Your task to perform on an android device: Show me productivity apps on the Play Store Image 0: 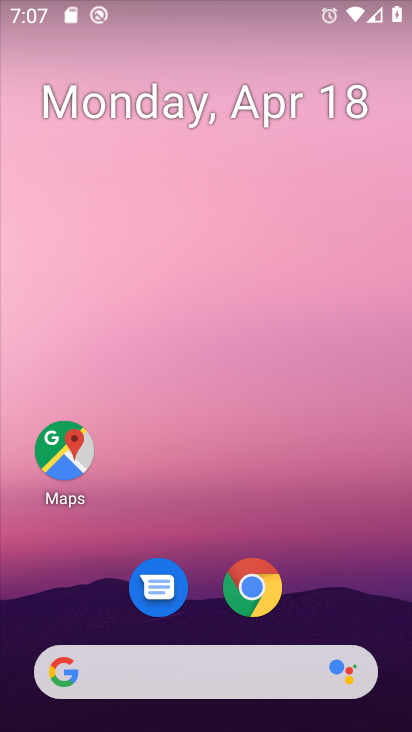
Step 0: drag from (347, 564) to (336, 76)
Your task to perform on an android device: Show me productivity apps on the Play Store Image 1: 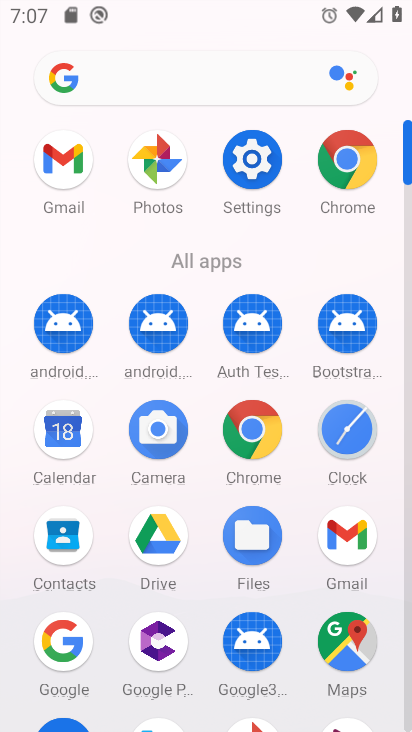
Step 1: click (410, 466)
Your task to perform on an android device: Show me productivity apps on the Play Store Image 2: 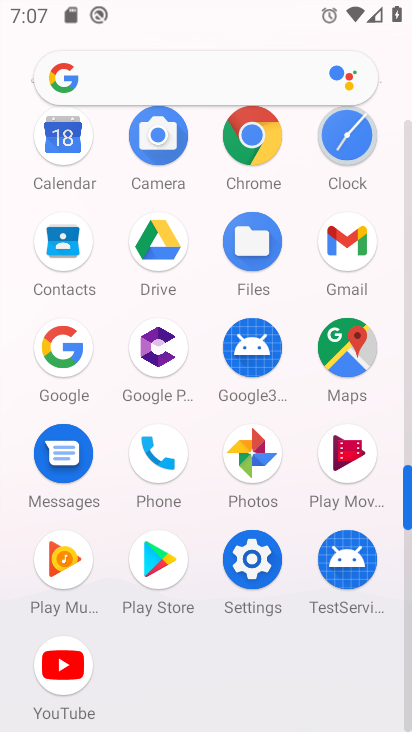
Step 2: click (139, 596)
Your task to perform on an android device: Show me productivity apps on the Play Store Image 3: 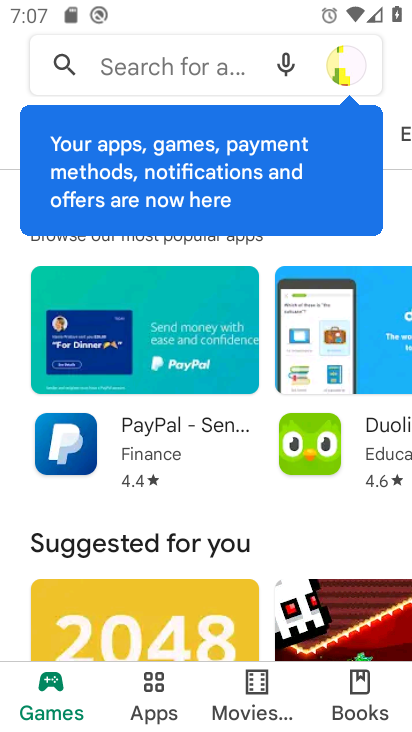
Step 3: click (145, 696)
Your task to perform on an android device: Show me productivity apps on the Play Store Image 4: 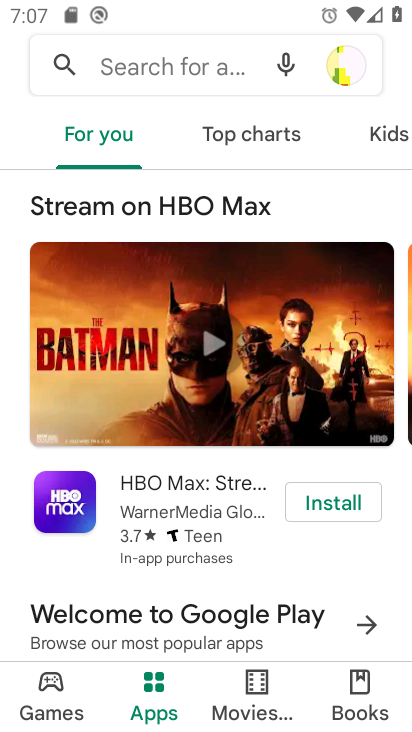
Step 4: click (247, 147)
Your task to perform on an android device: Show me productivity apps on the Play Store Image 5: 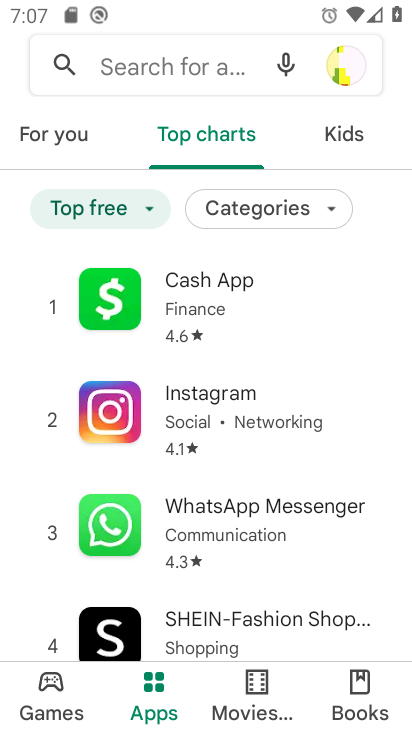
Step 5: drag from (277, 550) to (277, 416)
Your task to perform on an android device: Show me productivity apps on the Play Store Image 6: 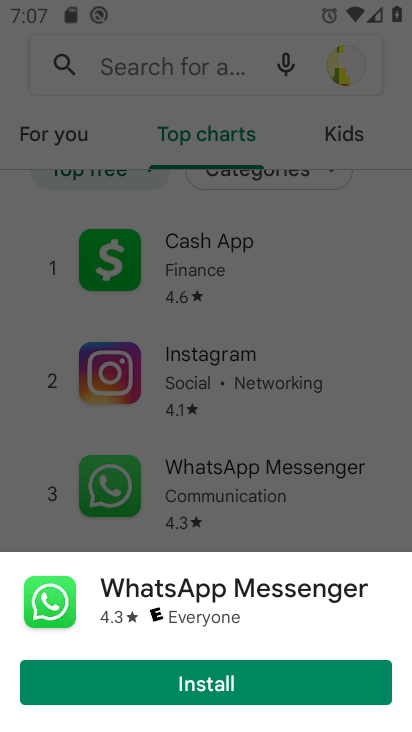
Step 6: click (228, 451)
Your task to perform on an android device: Show me productivity apps on the Play Store Image 7: 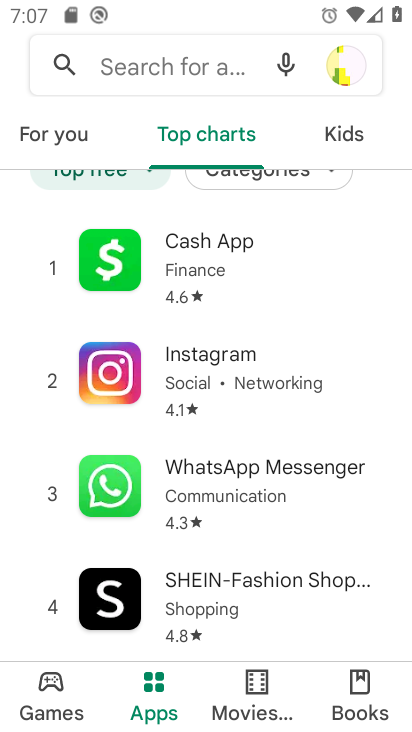
Step 7: drag from (228, 451) to (267, 185)
Your task to perform on an android device: Show me productivity apps on the Play Store Image 8: 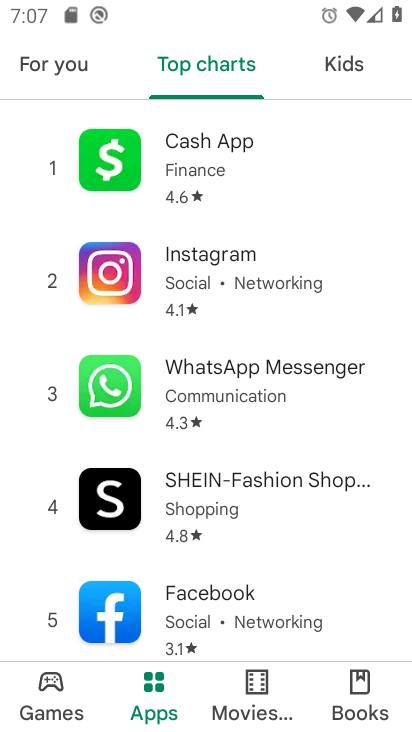
Step 8: click (48, 71)
Your task to perform on an android device: Show me productivity apps on the Play Store Image 9: 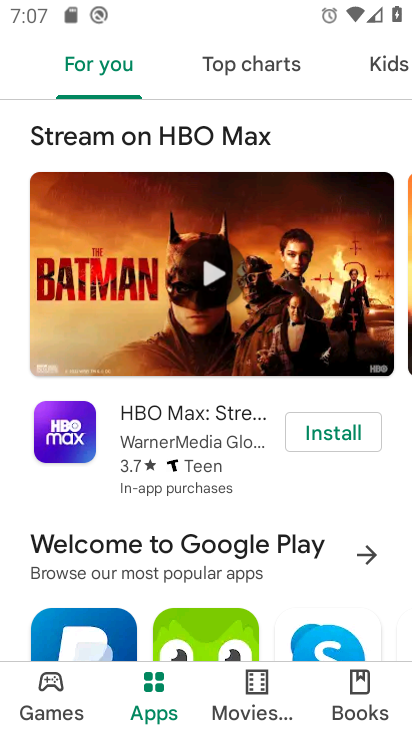
Step 9: drag from (279, 167) to (304, 563)
Your task to perform on an android device: Show me productivity apps on the Play Store Image 10: 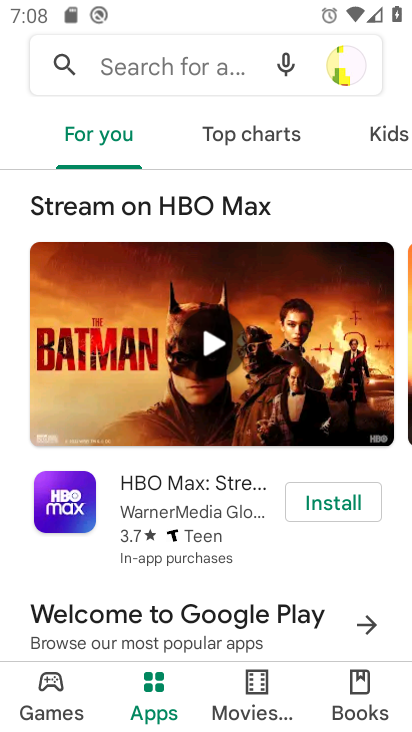
Step 10: click (212, 129)
Your task to perform on an android device: Show me productivity apps on the Play Store Image 11: 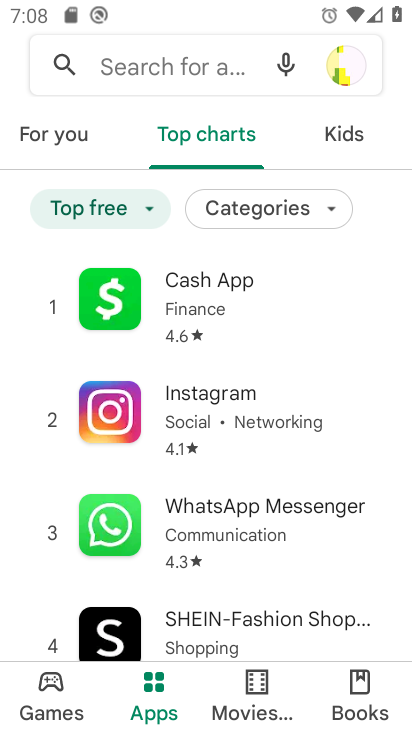
Step 11: click (230, 202)
Your task to perform on an android device: Show me productivity apps on the Play Store Image 12: 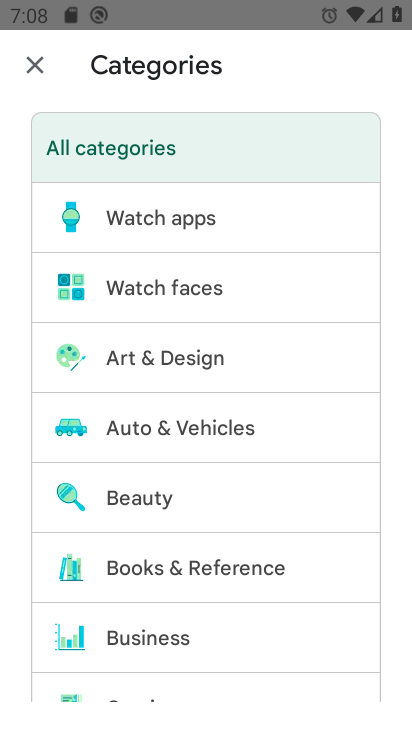
Step 12: drag from (170, 604) to (263, 149)
Your task to perform on an android device: Show me productivity apps on the Play Store Image 13: 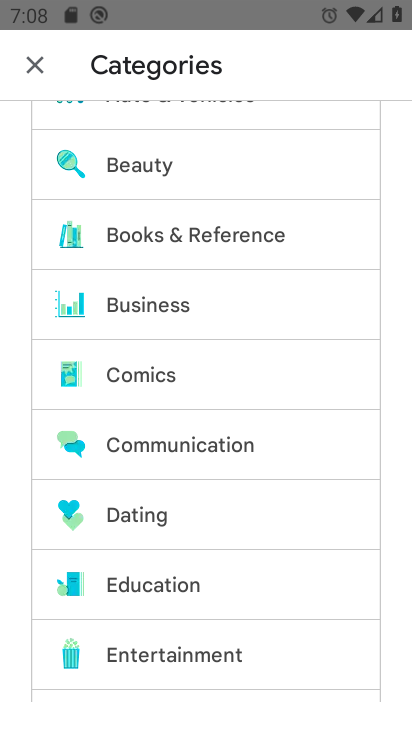
Step 13: drag from (218, 637) to (274, 210)
Your task to perform on an android device: Show me productivity apps on the Play Store Image 14: 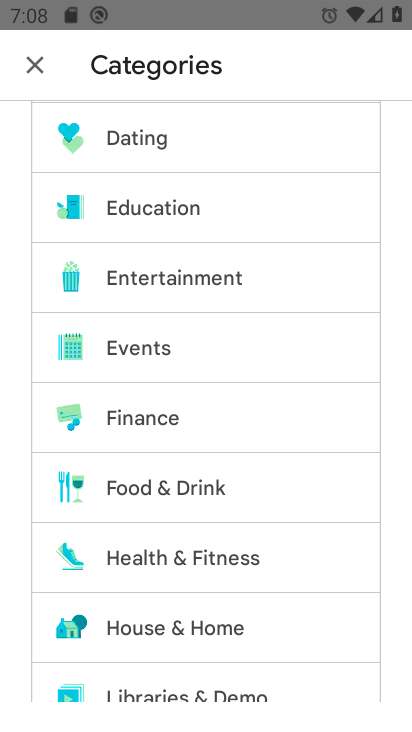
Step 14: drag from (206, 623) to (266, 151)
Your task to perform on an android device: Show me productivity apps on the Play Store Image 15: 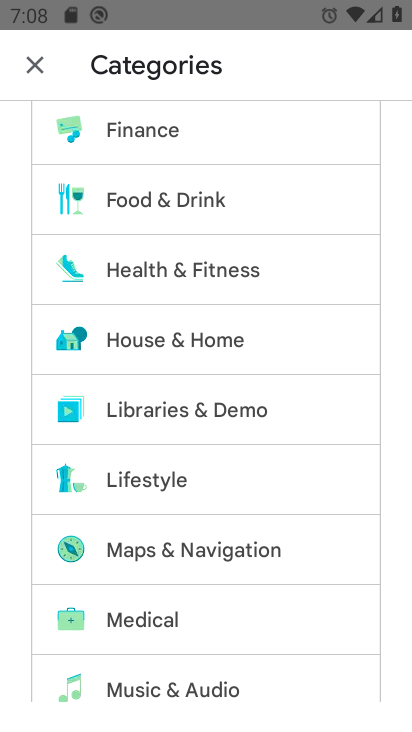
Step 15: drag from (194, 645) to (233, 234)
Your task to perform on an android device: Show me productivity apps on the Play Store Image 16: 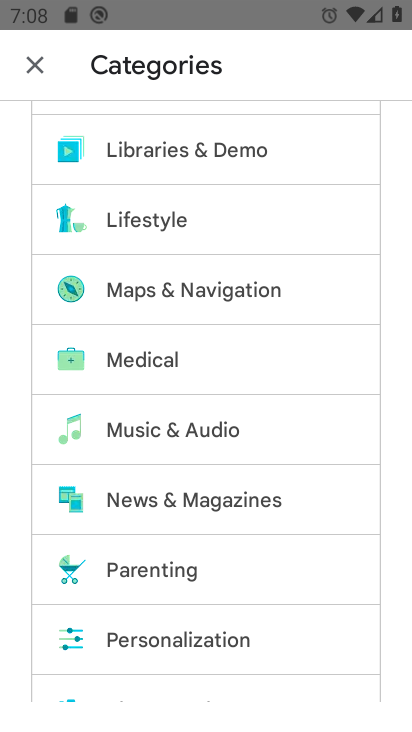
Step 16: drag from (189, 632) to (241, 396)
Your task to perform on an android device: Show me productivity apps on the Play Store Image 17: 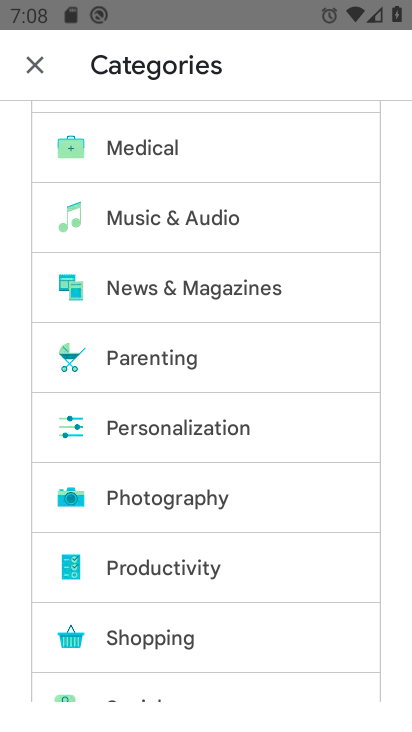
Step 17: click (206, 545)
Your task to perform on an android device: Show me productivity apps on the Play Store Image 18: 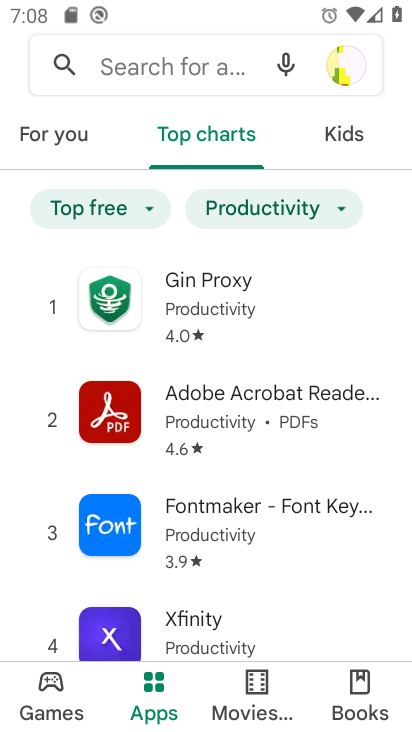
Step 18: task complete